Your task to perform on an android device: turn off translation in the chrome app Image 0: 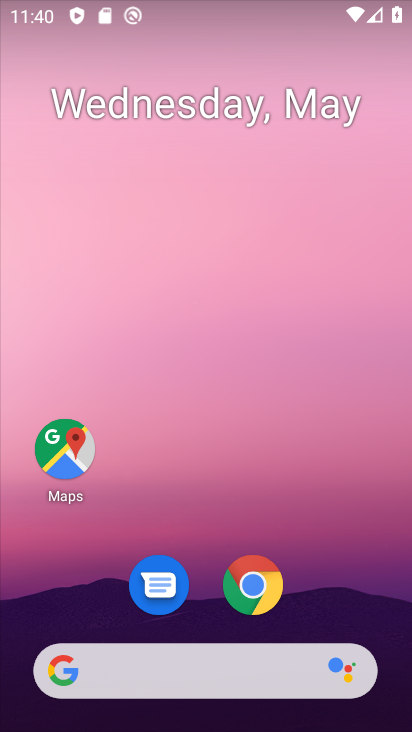
Step 0: drag from (238, 503) to (235, 381)
Your task to perform on an android device: turn off translation in the chrome app Image 1: 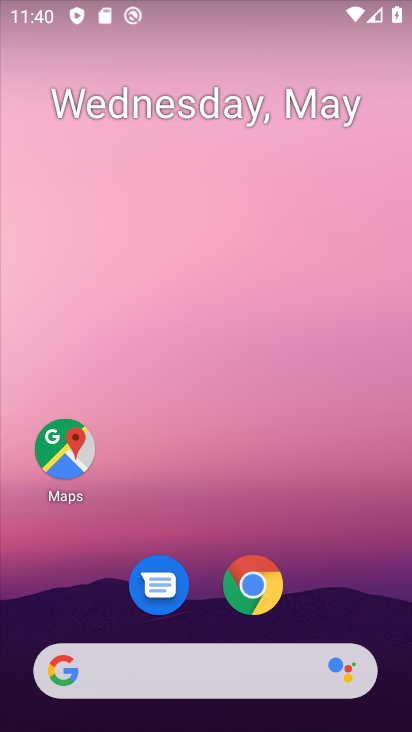
Step 1: click (258, 577)
Your task to perform on an android device: turn off translation in the chrome app Image 2: 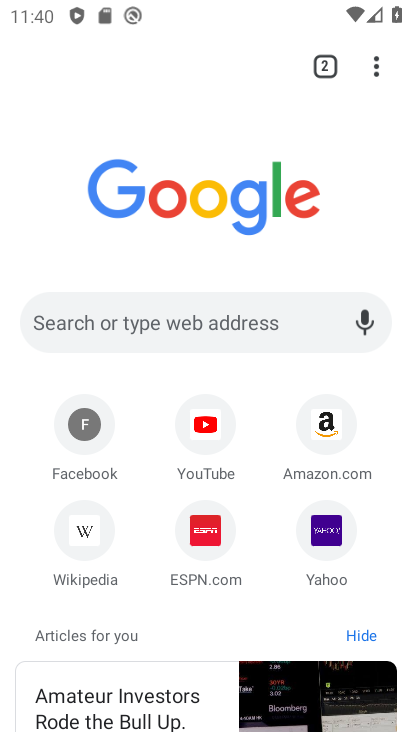
Step 2: click (305, 263)
Your task to perform on an android device: turn off translation in the chrome app Image 3: 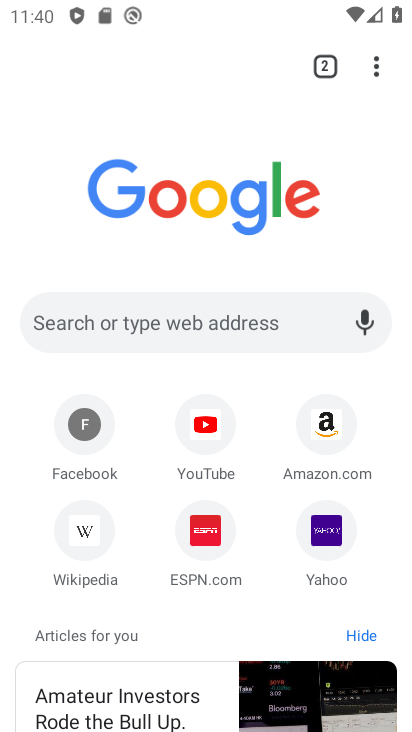
Step 3: click (373, 68)
Your task to perform on an android device: turn off translation in the chrome app Image 4: 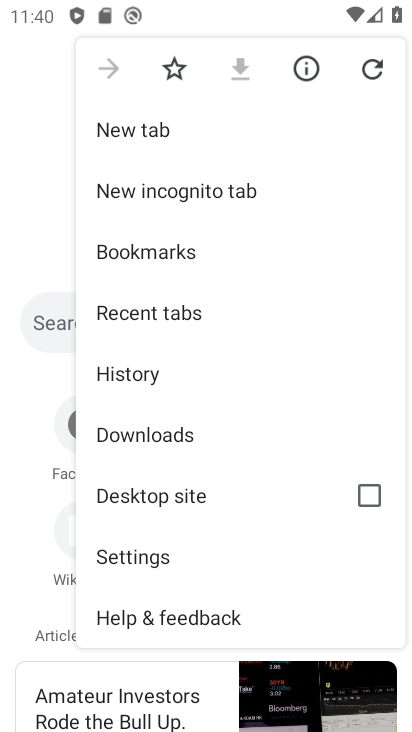
Step 4: click (179, 555)
Your task to perform on an android device: turn off translation in the chrome app Image 5: 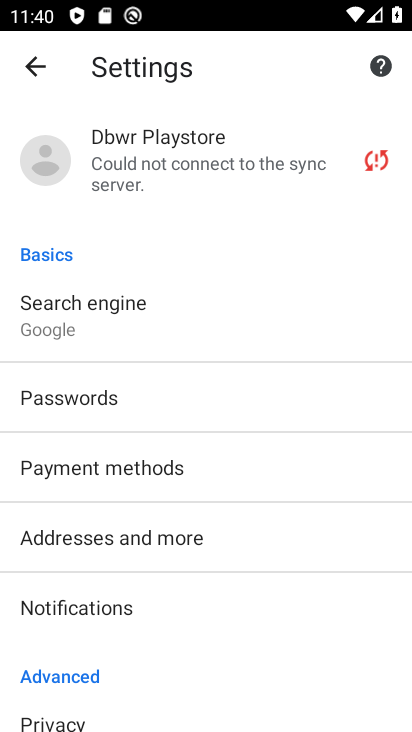
Step 5: drag from (208, 606) to (236, 247)
Your task to perform on an android device: turn off translation in the chrome app Image 6: 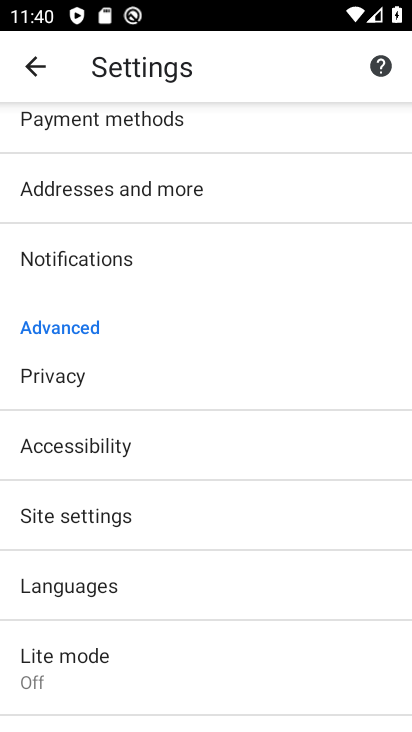
Step 6: click (187, 585)
Your task to perform on an android device: turn off translation in the chrome app Image 7: 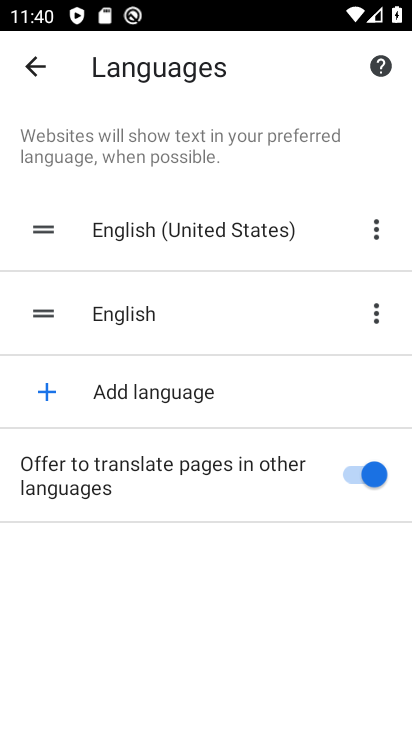
Step 7: click (356, 472)
Your task to perform on an android device: turn off translation in the chrome app Image 8: 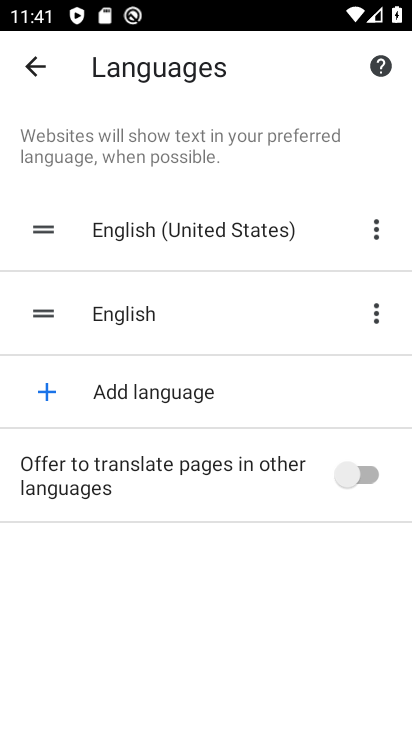
Step 8: task complete